Your task to perform on an android device: change your default location settings in chrome Image 0: 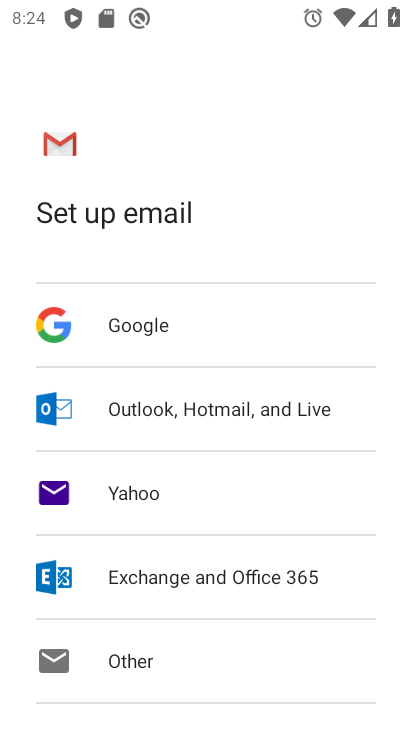
Step 0: press home button
Your task to perform on an android device: change your default location settings in chrome Image 1: 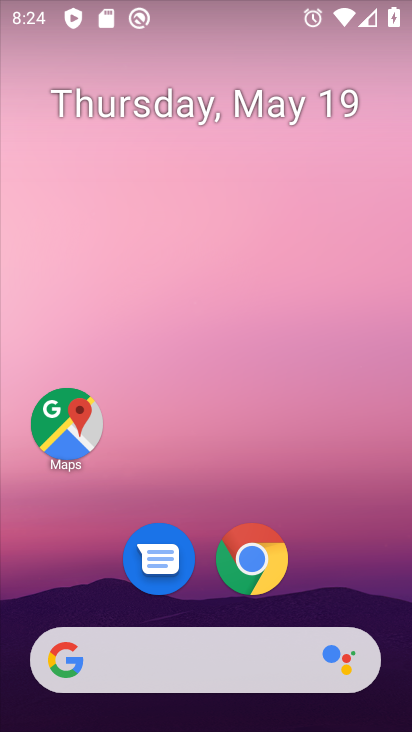
Step 1: click (264, 558)
Your task to perform on an android device: change your default location settings in chrome Image 2: 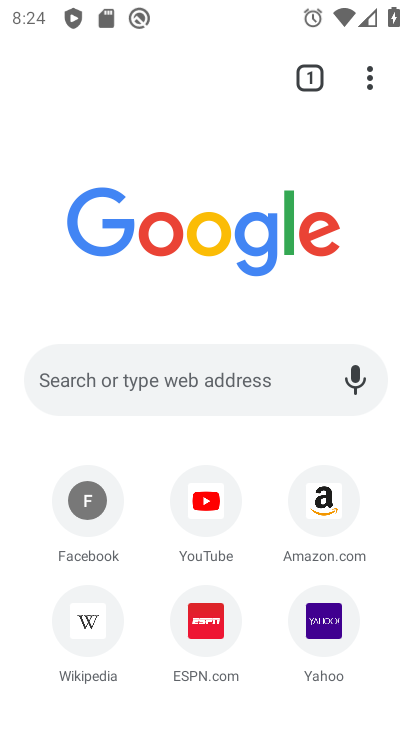
Step 2: drag from (368, 73) to (184, 667)
Your task to perform on an android device: change your default location settings in chrome Image 3: 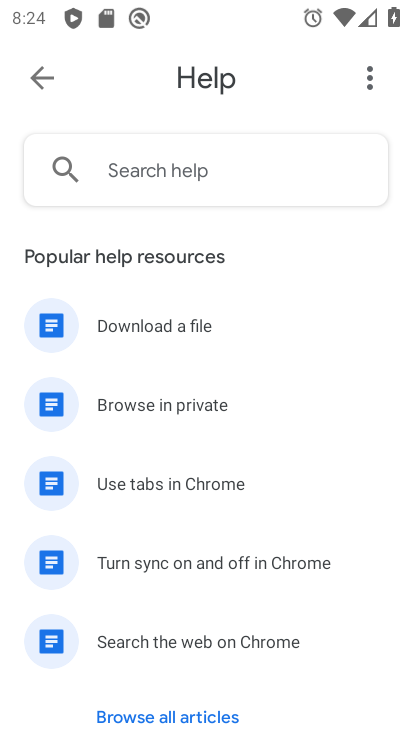
Step 3: click (22, 73)
Your task to perform on an android device: change your default location settings in chrome Image 4: 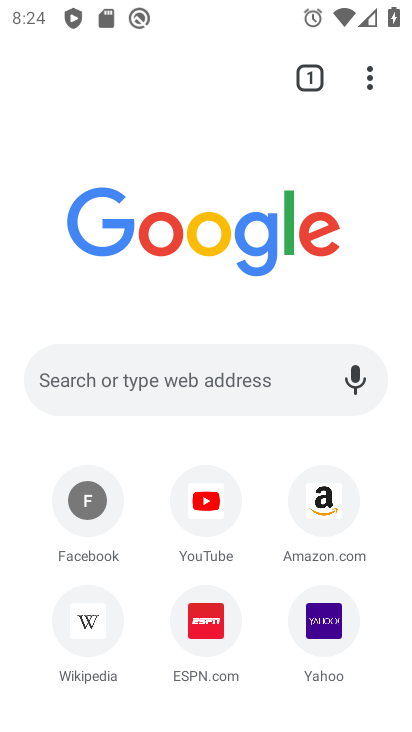
Step 4: drag from (367, 71) to (76, 623)
Your task to perform on an android device: change your default location settings in chrome Image 5: 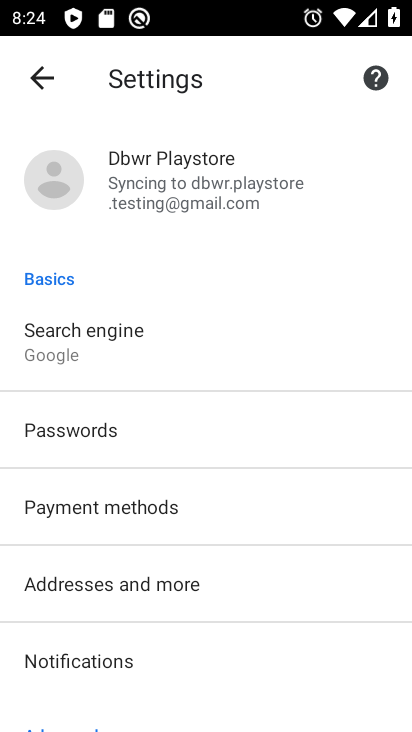
Step 5: drag from (261, 611) to (238, 316)
Your task to perform on an android device: change your default location settings in chrome Image 6: 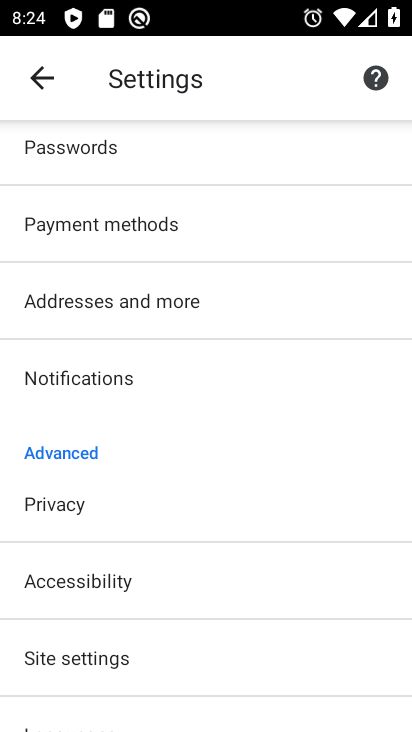
Step 6: click (165, 659)
Your task to perform on an android device: change your default location settings in chrome Image 7: 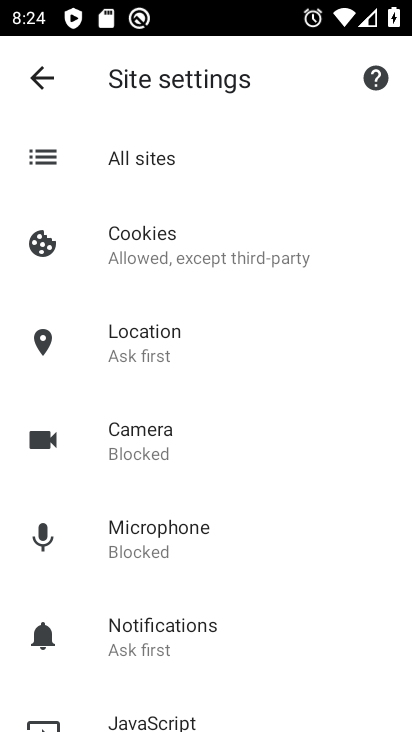
Step 7: click (173, 359)
Your task to perform on an android device: change your default location settings in chrome Image 8: 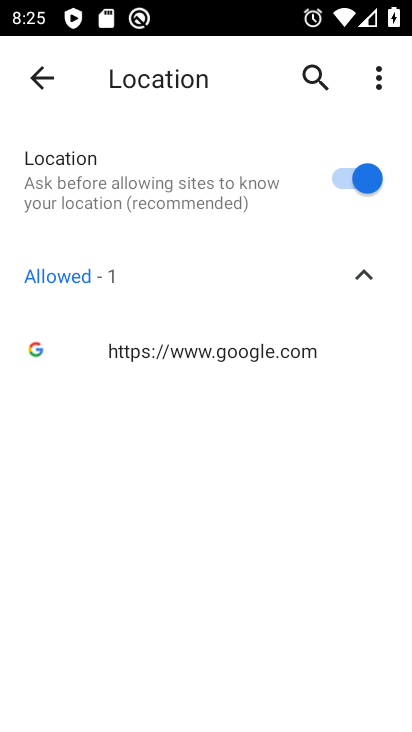
Step 8: click (367, 266)
Your task to perform on an android device: change your default location settings in chrome Image 9: 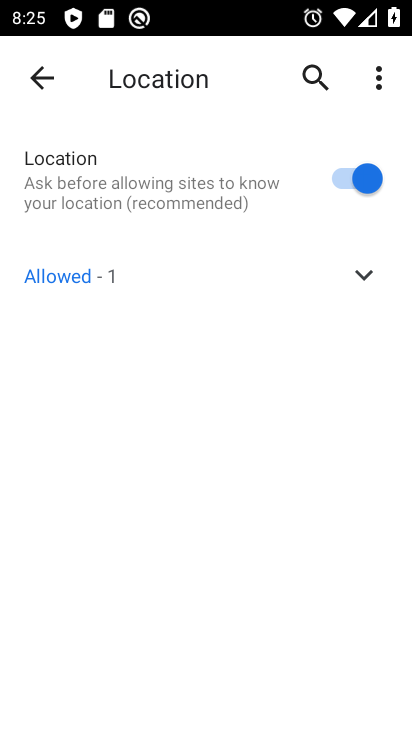
Step 9: task complete